Your task to perform on an android device: star an email in the gmail app Image 0: 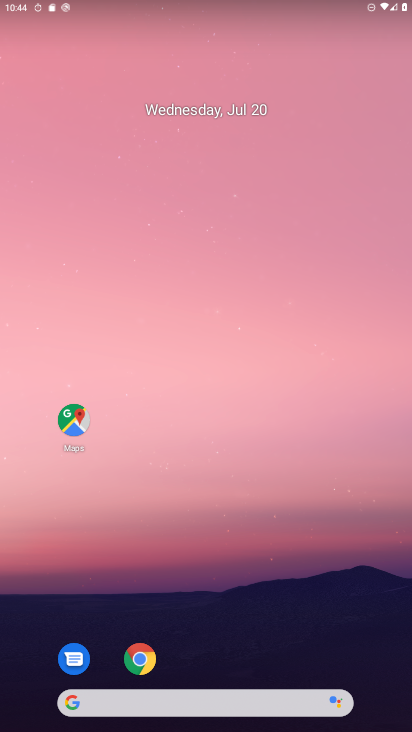
Step 0: drag from (337, 525) to (333, 79)
Your task to perform on an android device: star an email in the gmail app Image 1: 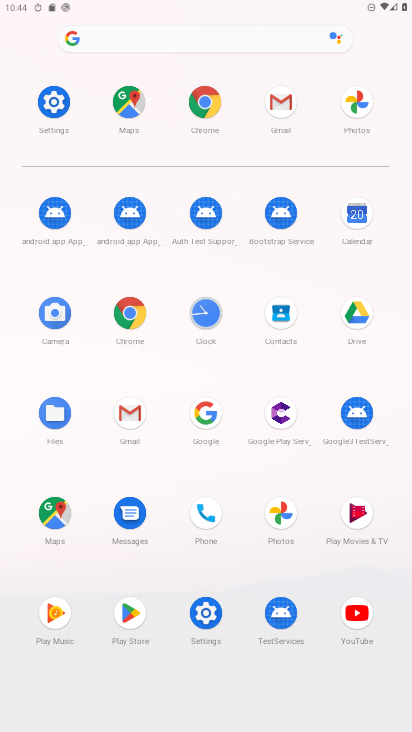
Step 1: click (278, 102)
Your task to perform on an android device: star an email in the gmail app Image 2: 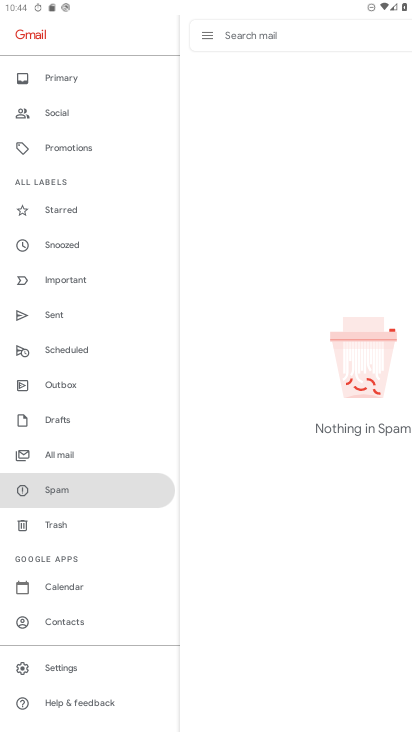
Step 2: click (61, 460)
Your task to perform on an android device: star an email in the gmail app Image 3: 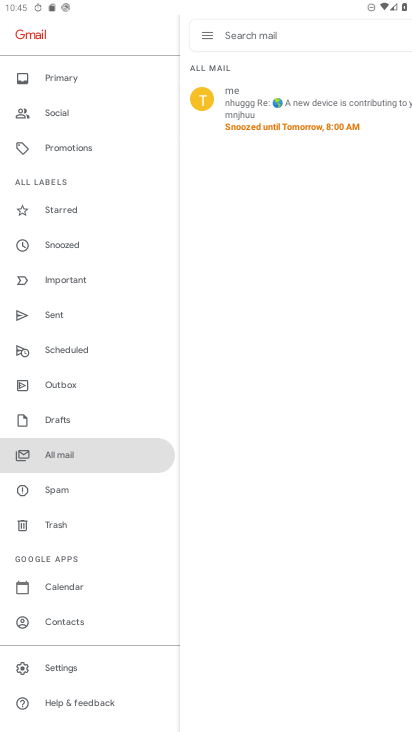
Step 3: click (259, 109)
Your task to perform on an android device: star an email in the gmail app Image 4: 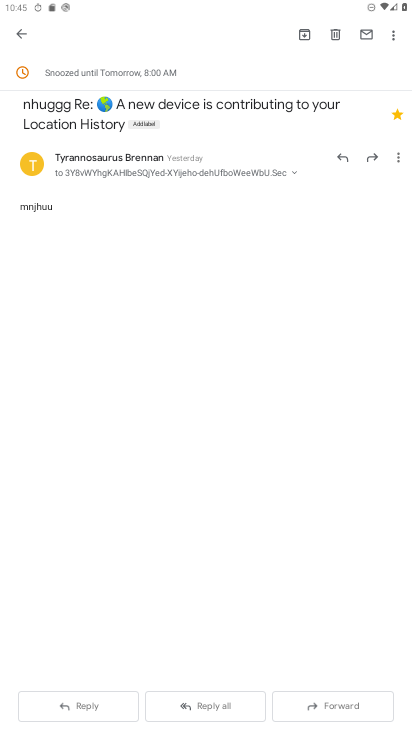
Step 4: click (17, 25)
Your task to perform on an android device: star an email in the gmail app Image 5: 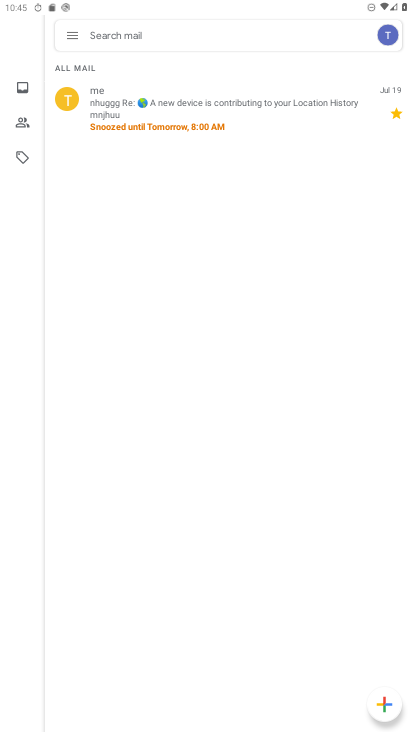
Step 5: task complete